Your task to perform on an android device: set default search engine in the chrome app Image 0: 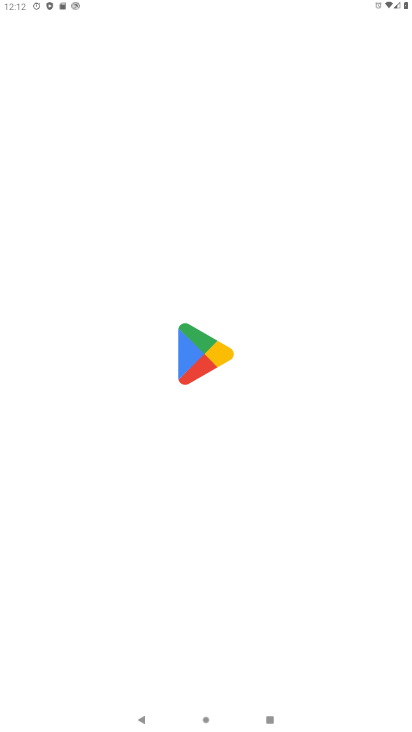
Step 0: press home button
Your task to perform on an android device: set default search engine in the chrome app Image 1: 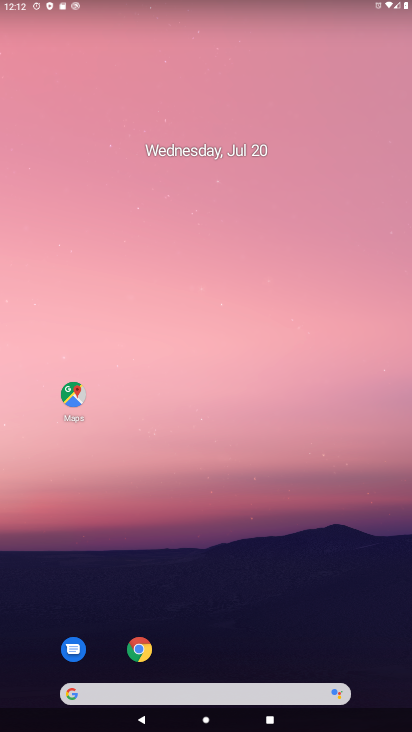
Step 1: drag from (185, 720) to (185, 388)
Your task to perform on an android device: set default search engine in the chrome app Image 2: 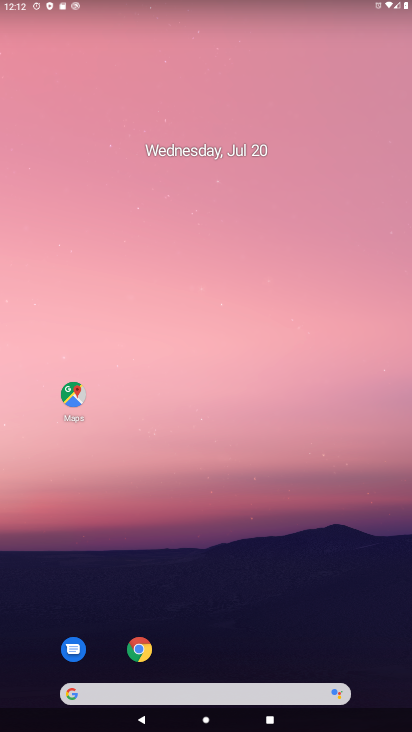
Step 2: drag from (179, 710) to (187, 94)
Your task to perform on an android device: set default search engine in the chrome app Image 3: 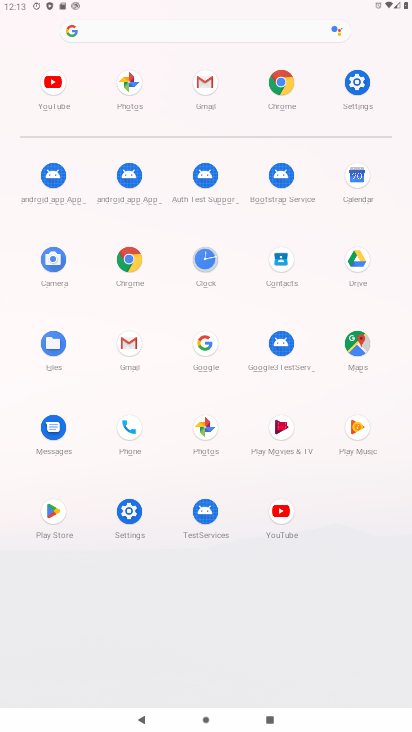
Step 3: click (134, 257)
Your task to perform on an android device: set default search engine in the chrome app Image 4: 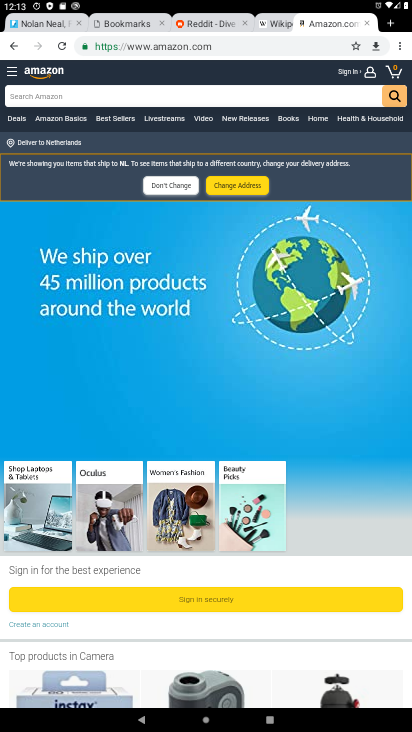
Step 4: click (401, 46)
Your task to perform on an android device: set default search engine in the chrome app Image 5: 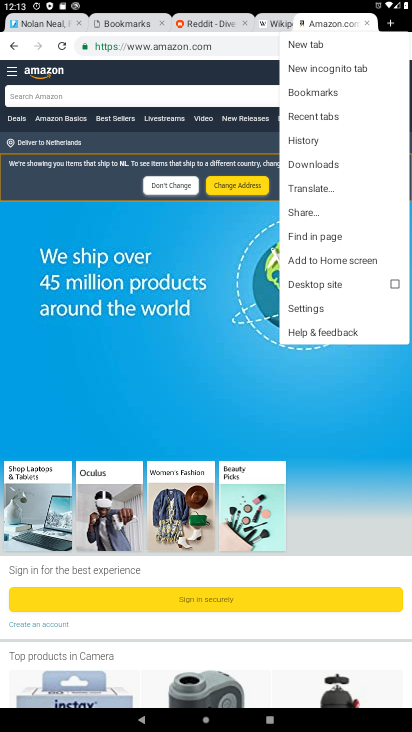
Step 5: click (304, 310)
Your task to perform on an android device: set default search engine in the chrome app Image 6: 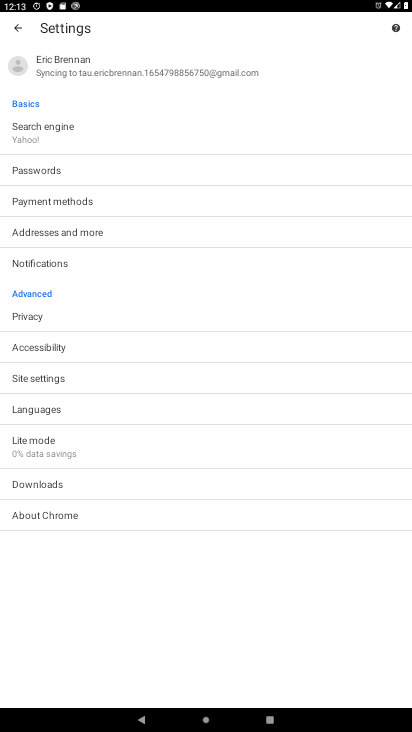
Step 6: click (35, 133)
Your task to perform on an android device: set default search engine in the chrome app Image 7: 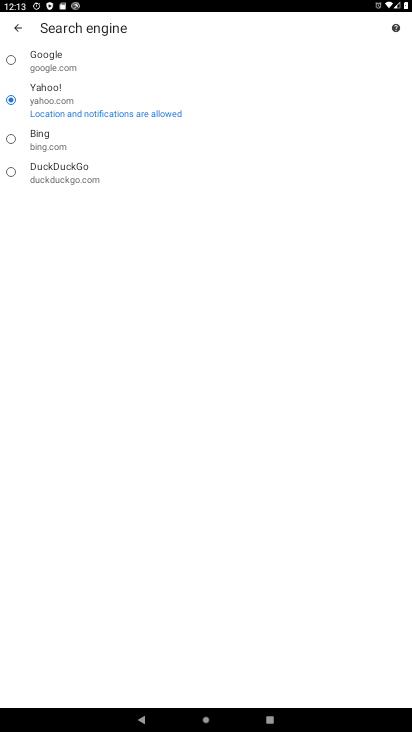
Step 7: click (9, 139)
Your task to perform on an android device: set default search engine in the chrome app Image 8: 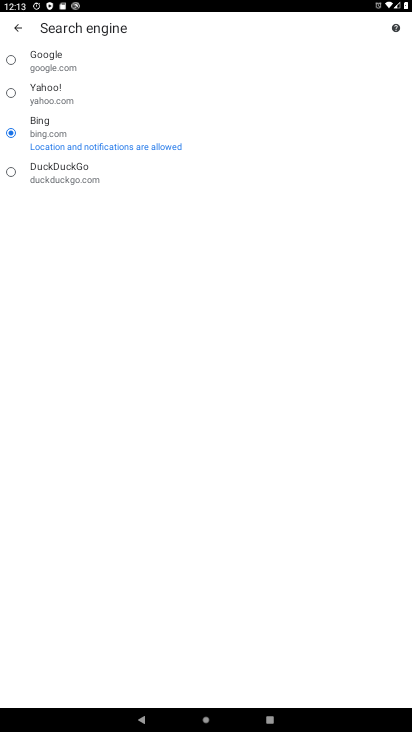
Step 8: task complete